Your task to perform on an android device: Search for pizza restaurants on Maps Image 0: 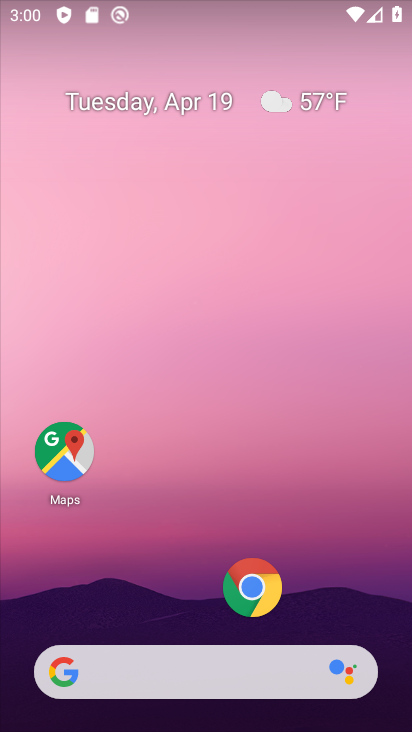
Step 0: click (62, 466)
Your task to perform on an android device: Search for pizza restaurants on Maps Image 1: 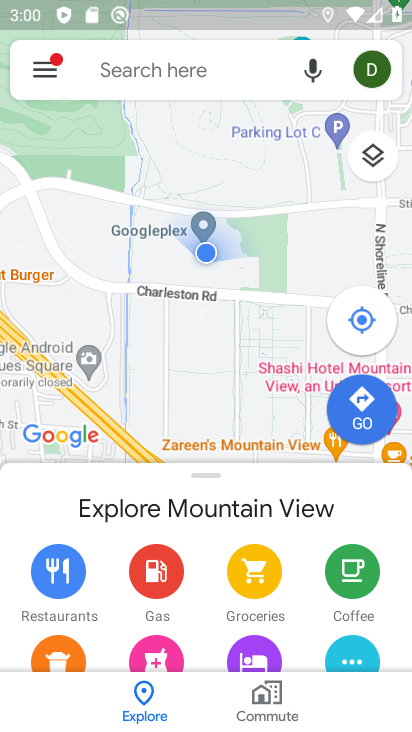
Step 1: click (109, 72)
Your task to perform on an android device: Search for pizza restaurants on Maps Image 2: 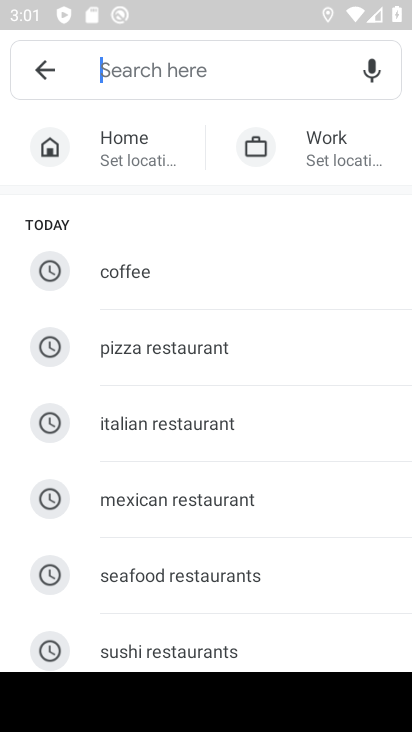
Step 2: type "pizza restaurants"
Your task to perform on an android device: Search for pizza restaurants on Maps Image 3: 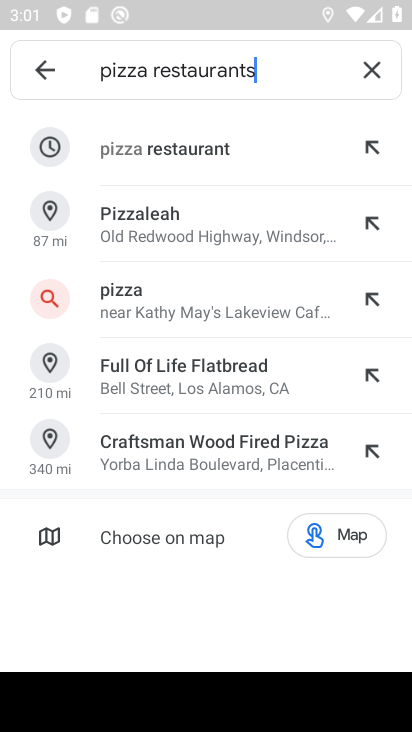
Step 3: click (220, 146)
Your task to perform on an android device: Search for pizza restaurants on Maps Image 4: 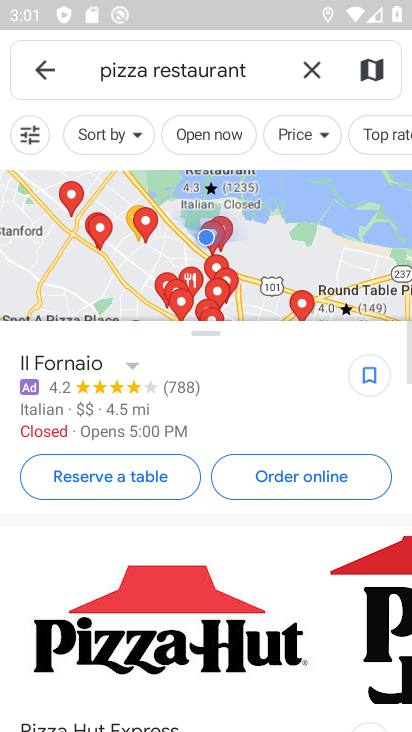
Step 4: task complete